Your task to perform on an android device: Open Wikipedia Image 0: 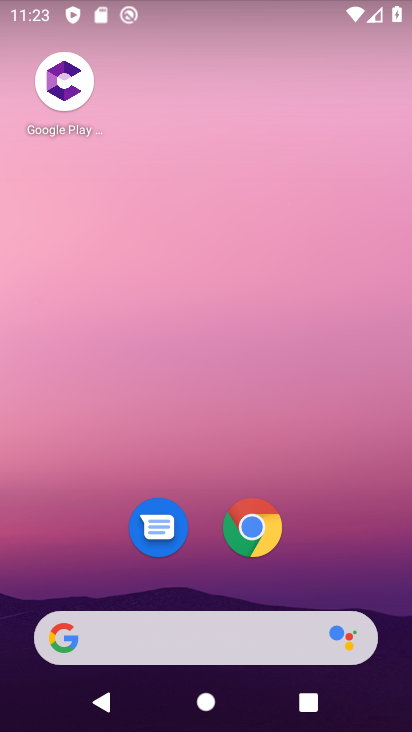
Step 0: drag from (203, 577) to (283, 9)
Your task to perform on an android device: Open Wikipedia Image 1: 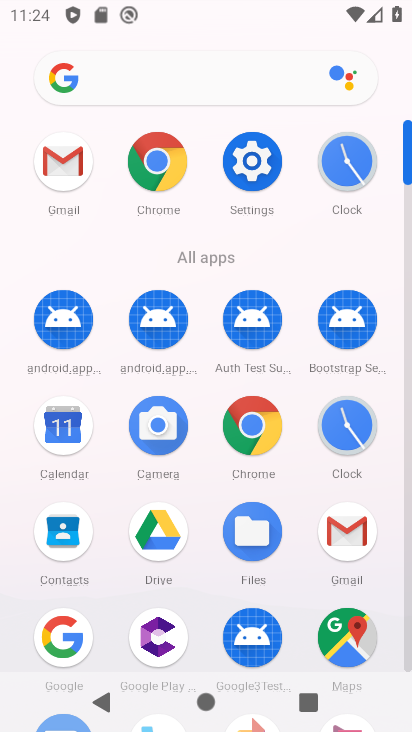
Step 1: click (247, 444)
Your task to perform on an android device: Open Wikipedia Image 2: 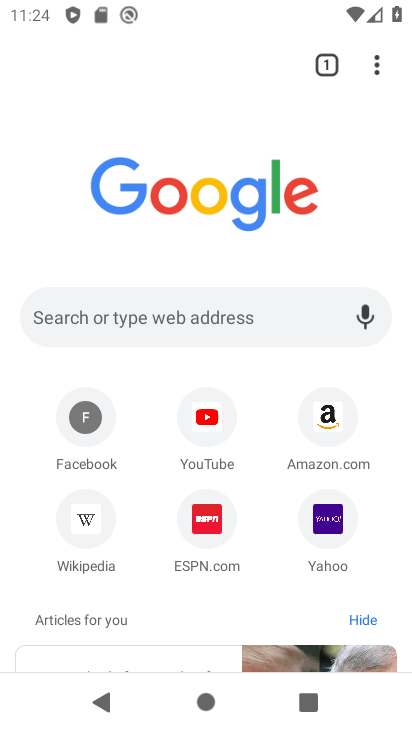
Step 2: click (177, 307)
Your task to perform on an android device: Open Wikipedia Image 3: 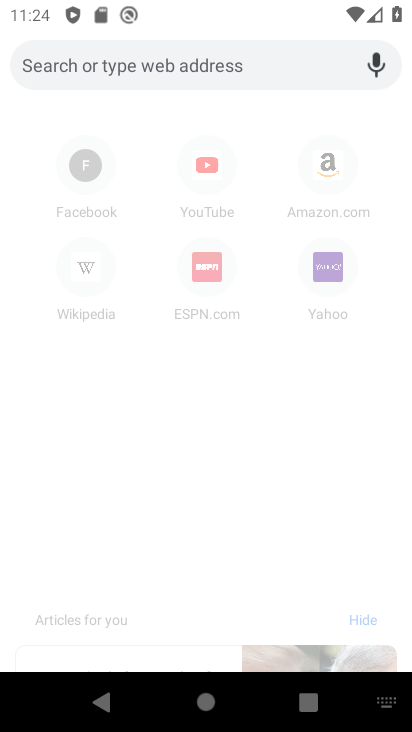
Step 3: type "wikipedia"
Your task to perform on an android device: Open Wikipedia Image 4: 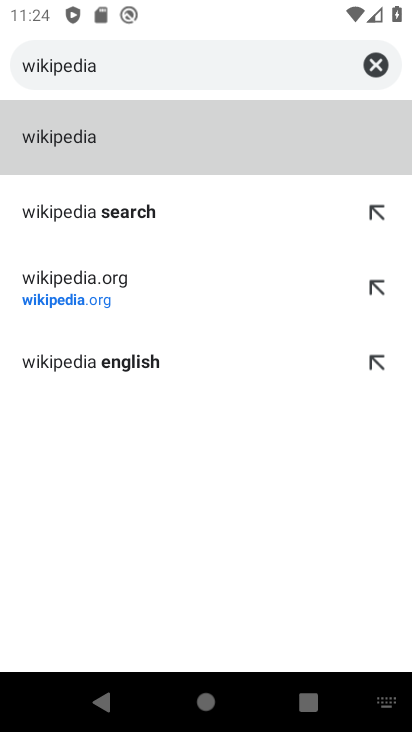
Step 4: click (200, 148)
Your task to perform on an android device: Open Wikipedia Image 5: 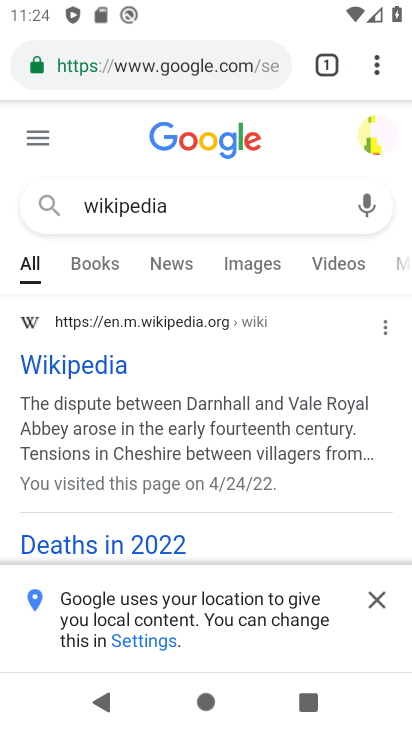
Step 5: click (371, 600)
Your task to perform on an android device: Open Wikipedia Image 6: 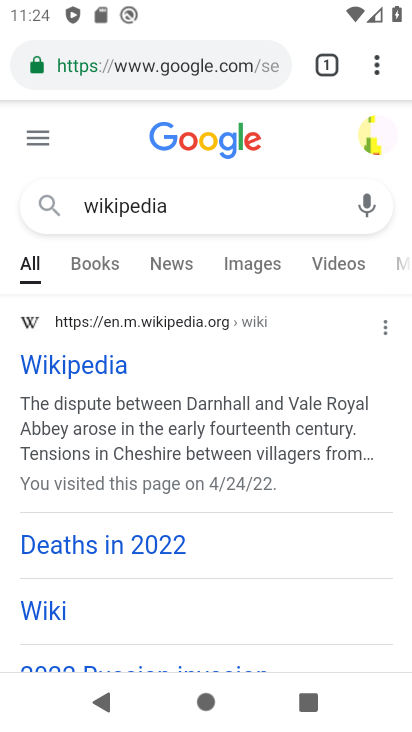
Step 6: task complete